Your task to perform on an android device: add a contact in the contacts app Image 0: 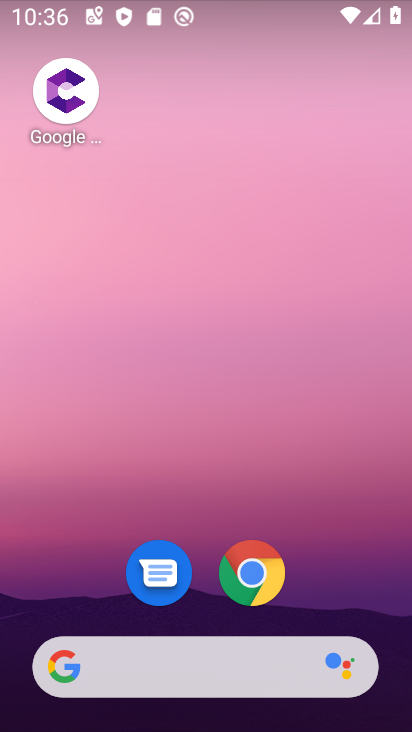
Step 0: drag from (209, 550) to (325, 95)
Your task to perform on an android device: add a contact in the contacts app Image 1: 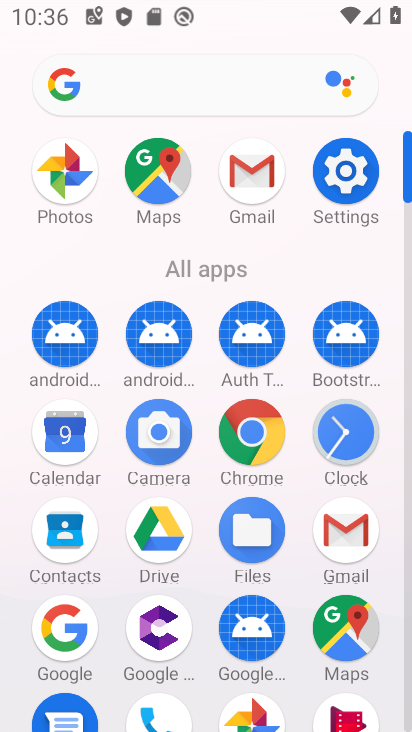
Step 1: click (57, 536)
Your task to perform on an android device: add a contact in the contacts app Image 2: 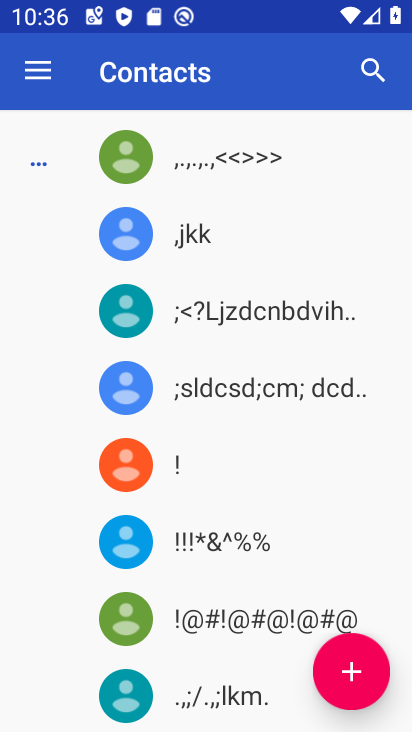
Step 2: click (358, 671)
Your task to perform on an android device: add a contact in the contacts app Image 3: 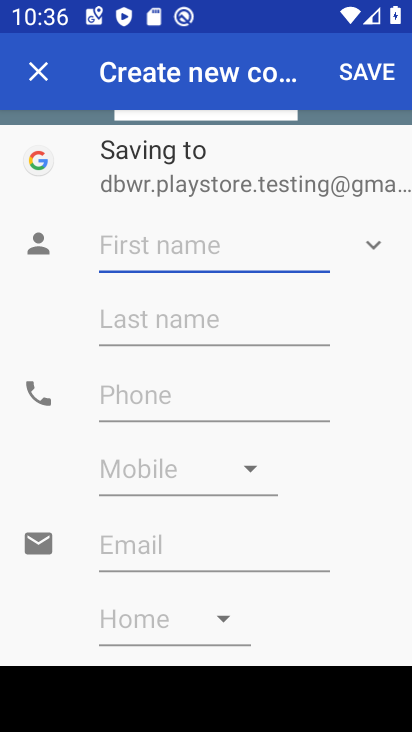
Step 3: click (176, 242)
Your task to perform on an android device: add a contact in the contacts app Image 4: 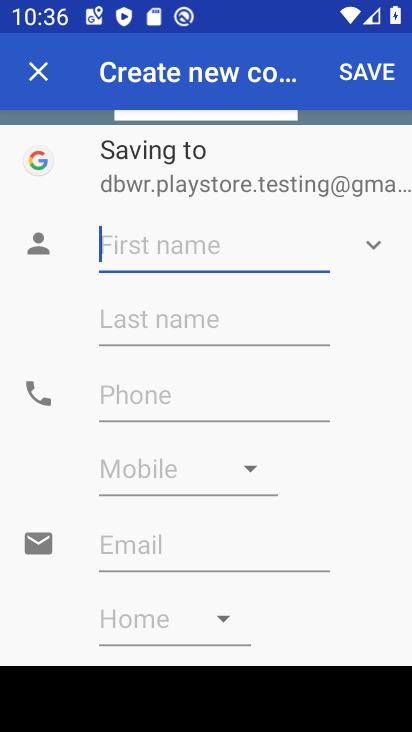
Step 4: type "dvf"
Your task to perform on an android device: add a contact in the contacts app Image 5: 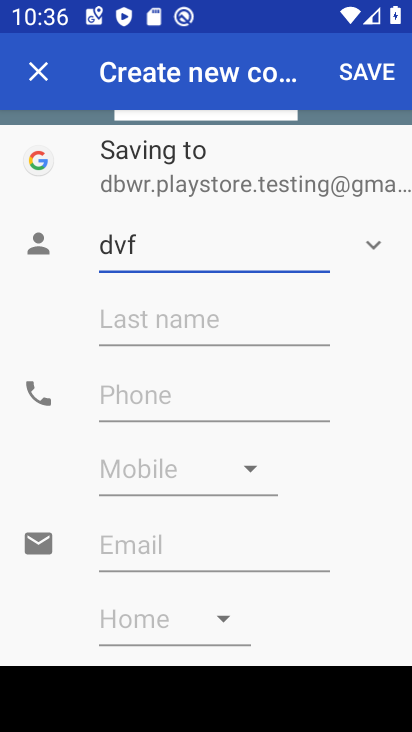
Step 5: click (170, 407)
Your task to perform on an android device: add a contact in the contacts app Image 6: 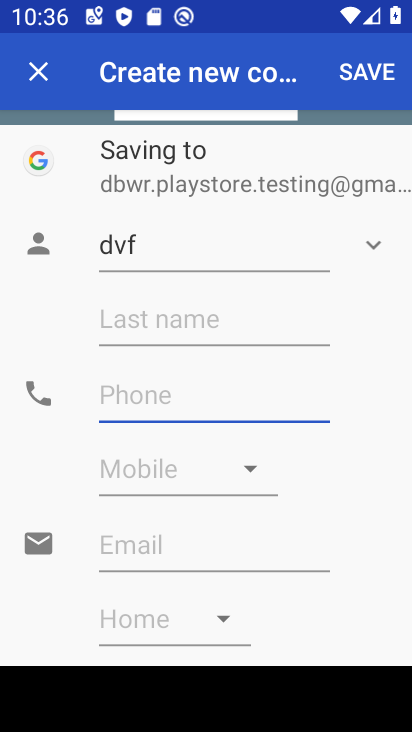
Step 6: type "76776"
Your task to perform on an android device: add a contact in the contacts app Image 7: 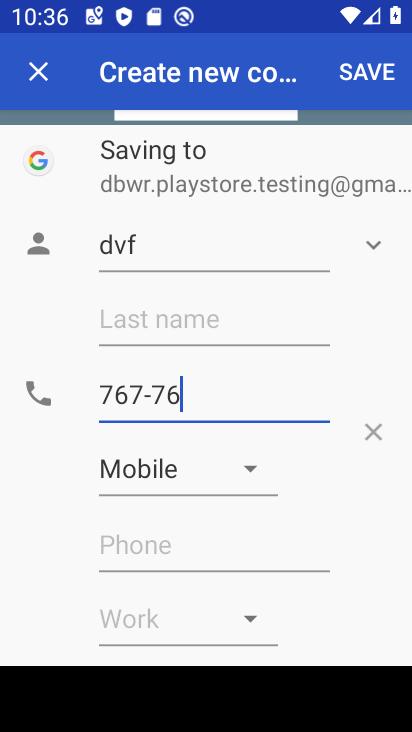
Step 7: click (360, 50)
Your task to perform on an android device: add a contact in the contacts app Image 8: 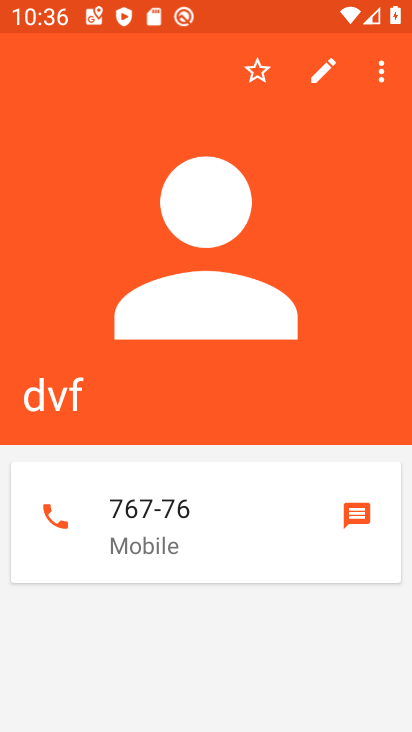
Step 8: task complete